Your task to perform on an android device: Show the shopping cart on target. Search for logitech g933 on target, select the first entry, add it to the cart, then select checkout. Image 0: 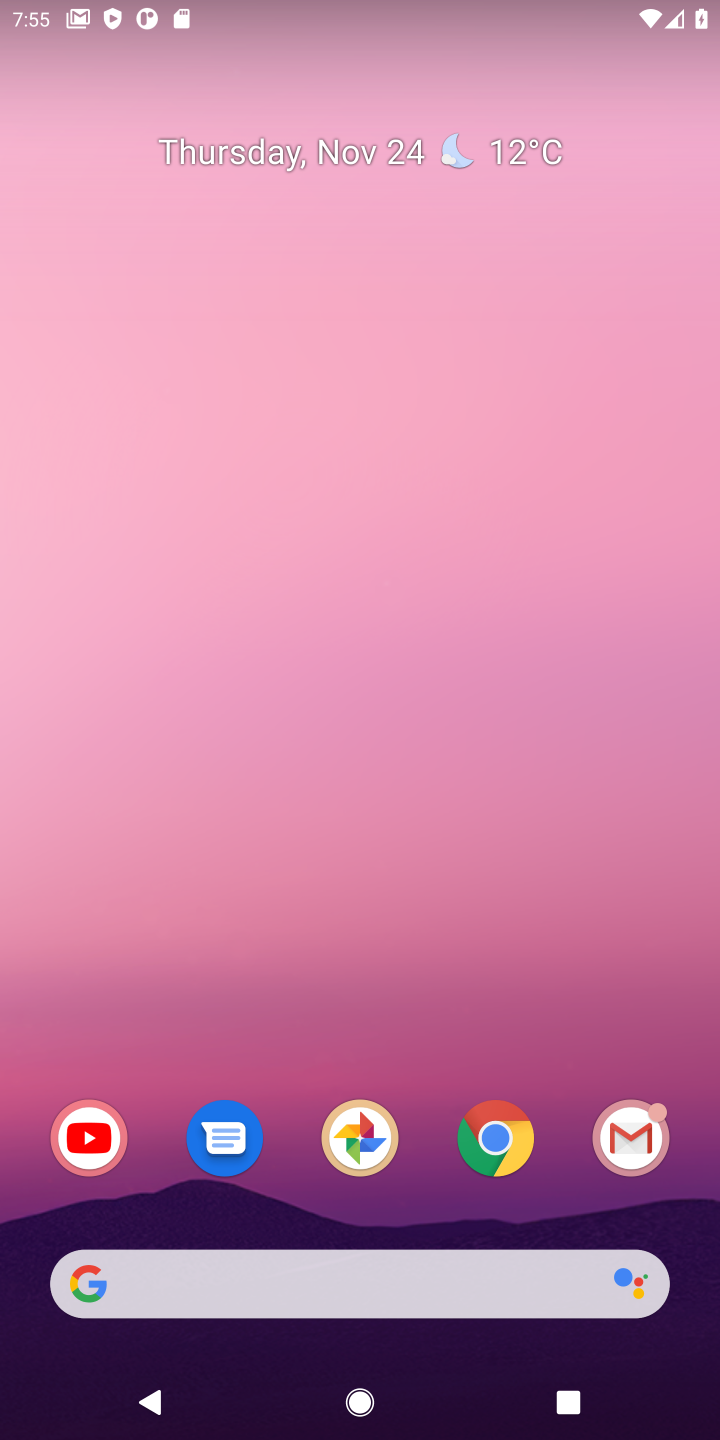
Step 0: click (485, 1141)
Your task to perform on an android device: Show the shopping cart on target. Search for logitech g933 on target, select the first entry, add it to the cart, then select checkout. Image 1: 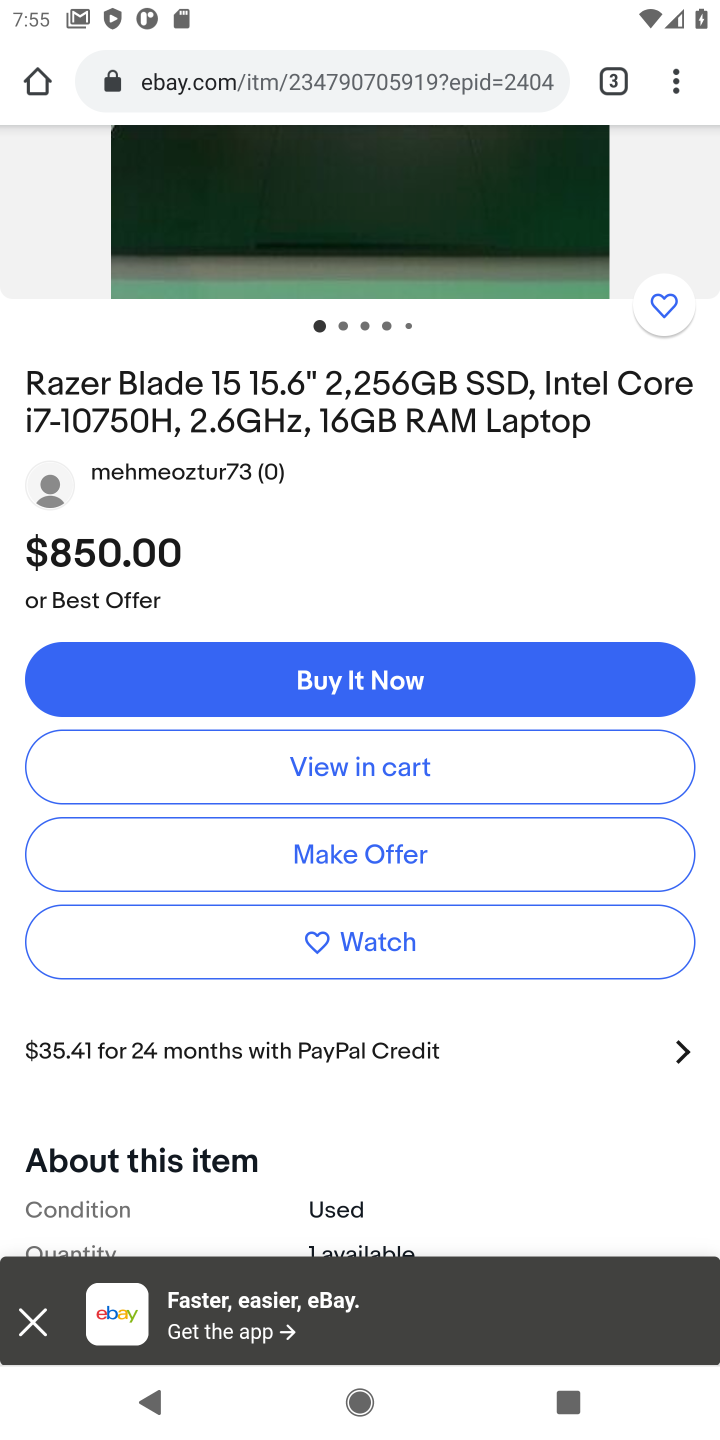
Step 1: drag from (442, 404) to (472, 1198)
Your task to perform on an android device: Show the shopping cart on target. Search for logitech g933 on target, select the first entry, add it to the cart, then select checkout. Image 2: 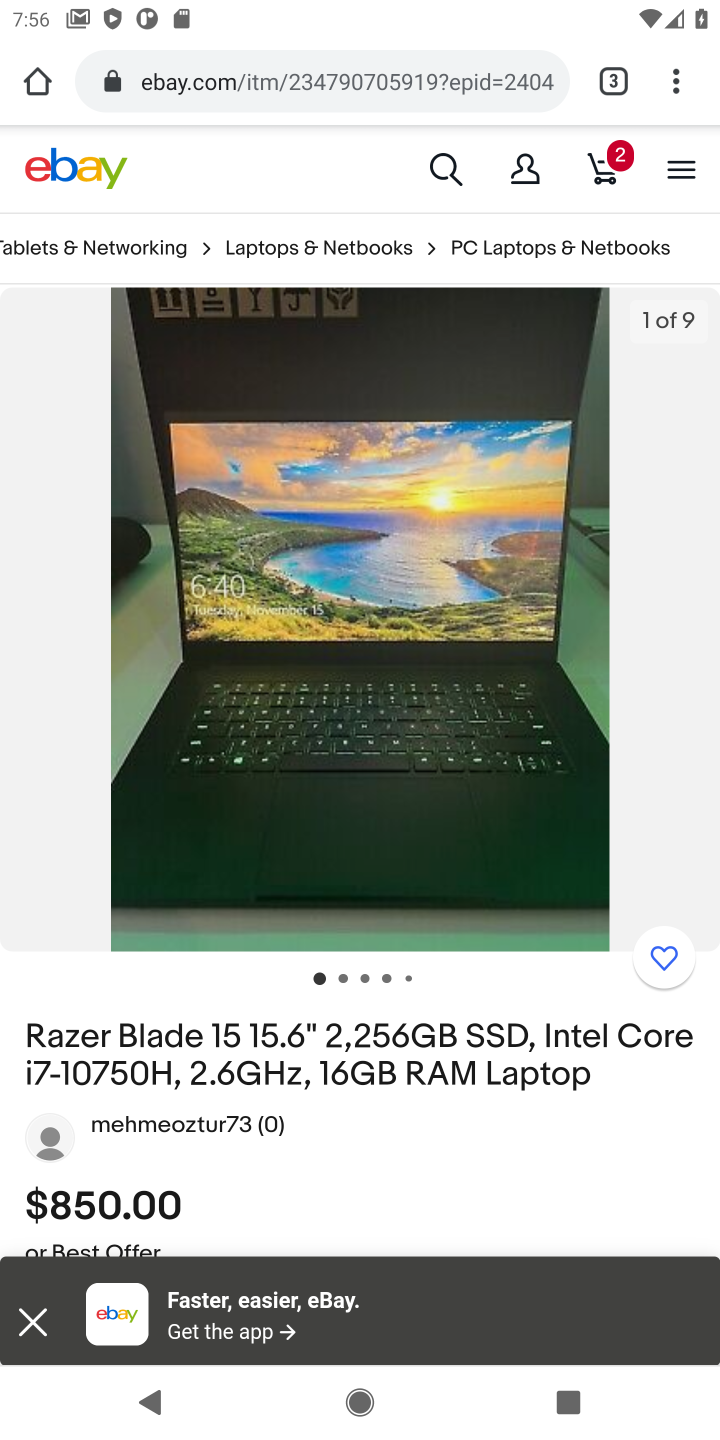
Step 2: click (600, 170)
Your task to perform on an android device: Show the shopping cart on target. Search for logitech g933 on target, select the first entry, add it to the cart, then select checkout. Image 3: 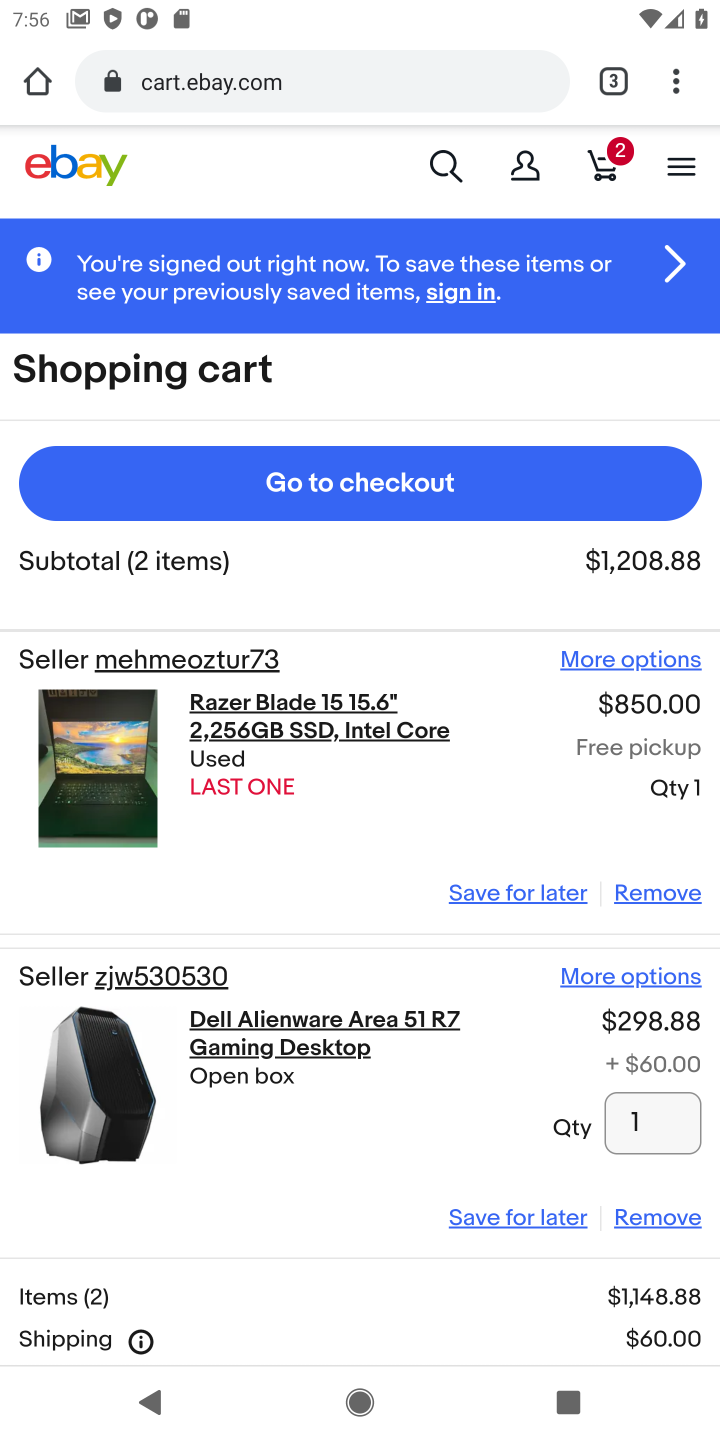
Step 3: click (611, 75)
Your task to perform on an android device: Show the shopping cart on target. Search for logitech g933 on target, select the first entry, add it to the cart, then select checkout. Image 4: 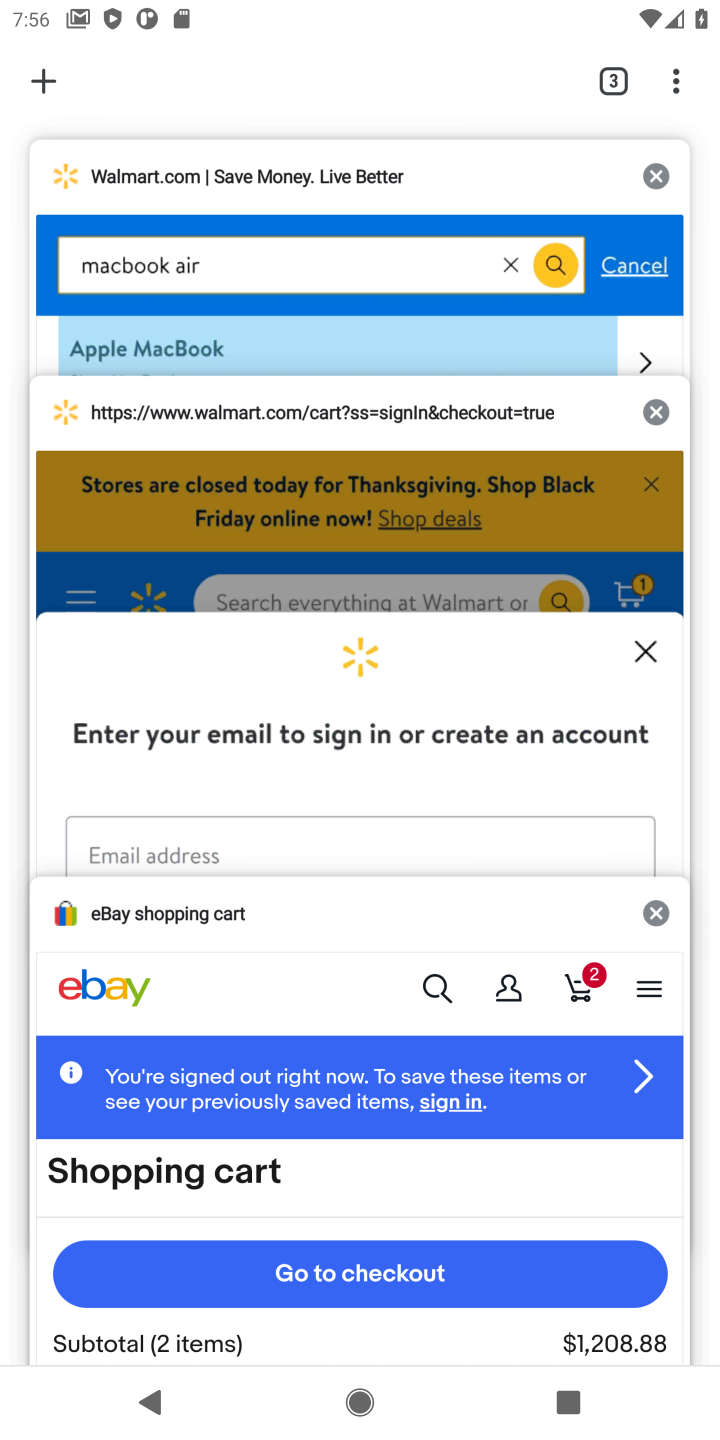
Step 4: click (55, 73)
Your task to perform on an android device: Show the shopping cart on target. Search for logitech g933 on target, select the first entry, add it to the cart, then select checkout. Image 5: 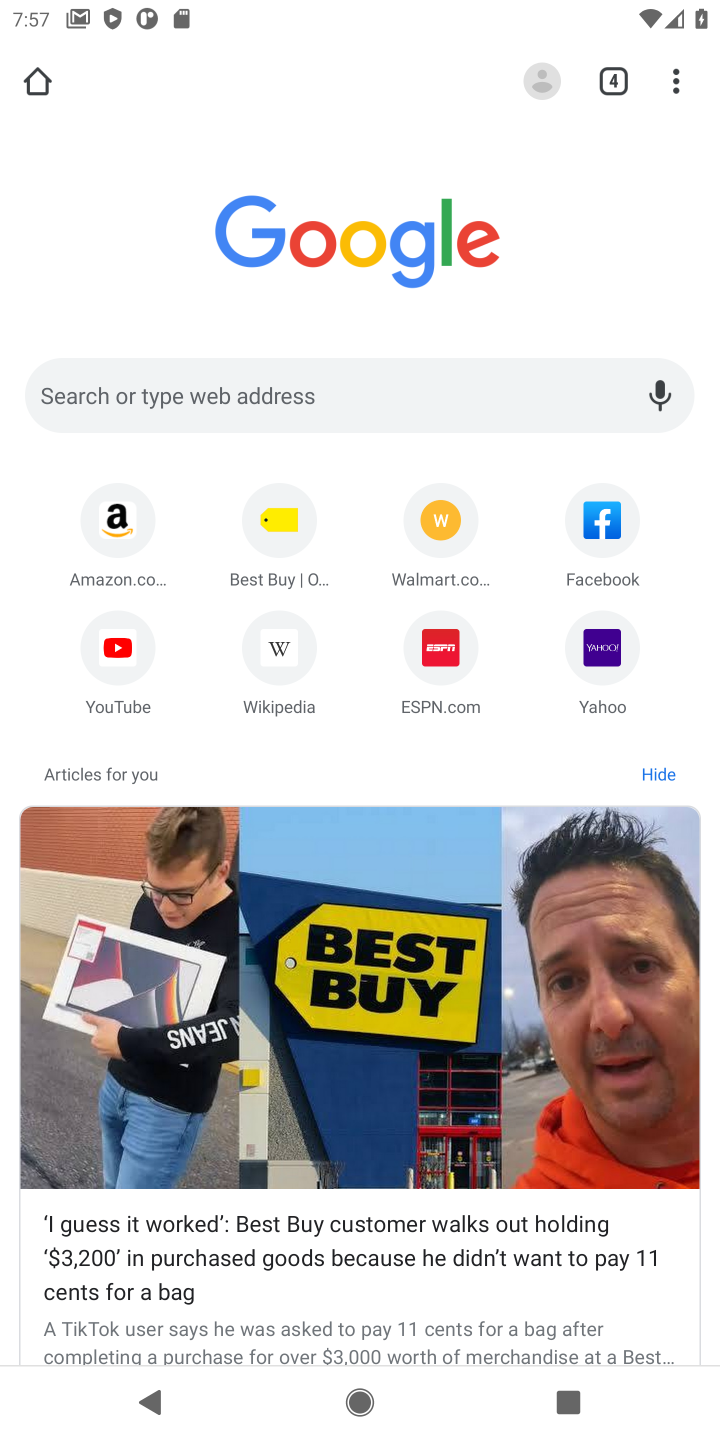
Step 5: click (157, 396)
Your task to perform on an android device: Show the shopping cart on target. Search for logitech g933 on target, select the first entry, add it to the cart, then select checkout. Image 6: 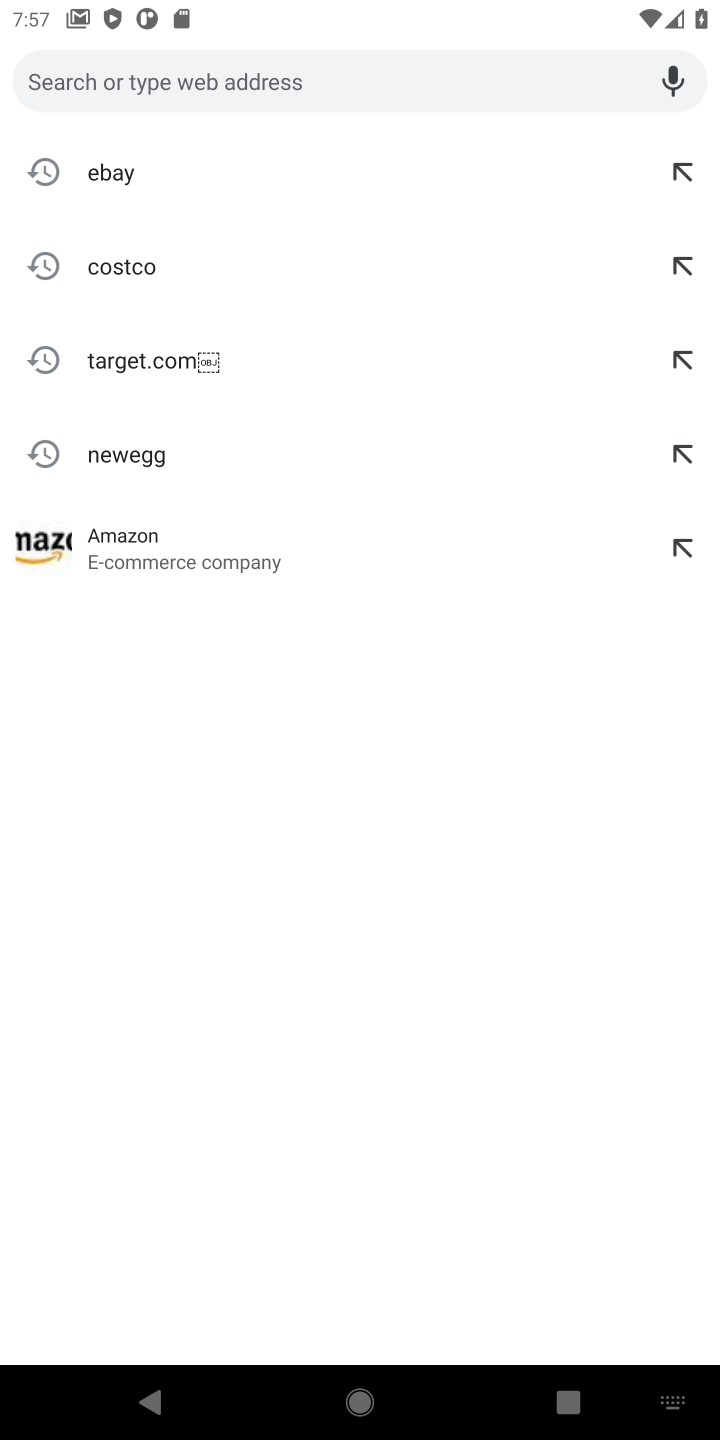
Step 6: click (137, 371)
Your task to perform on an android device: Show the shopping cart on target. Search for logitech g933 on target, select the first entry, add it to the cart, then select checkout. Image 7: 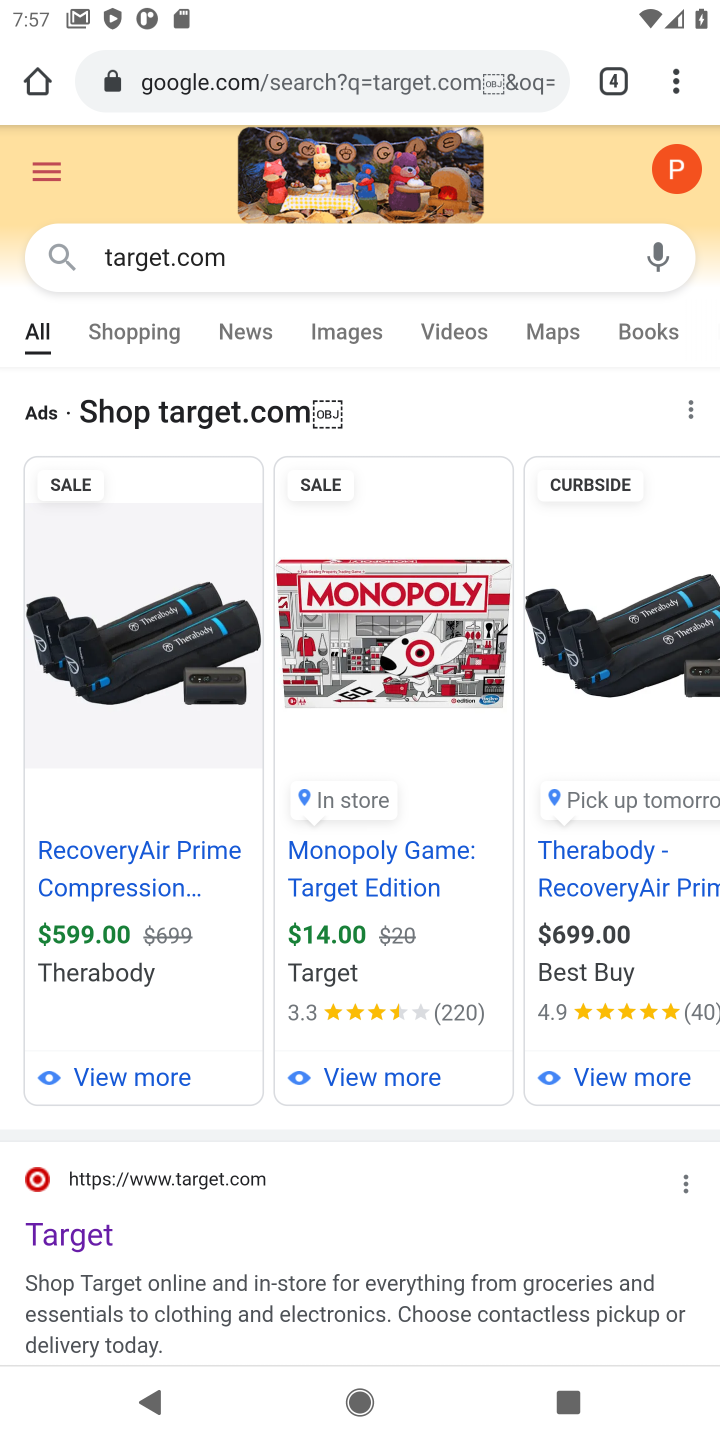
Step 7: click (66, 1224)
Your task to perform on an android device: Show the shopping cart on target. Search for logitech g933 on target, select the first entry, add it to the cart, then select checkout. Image 8: 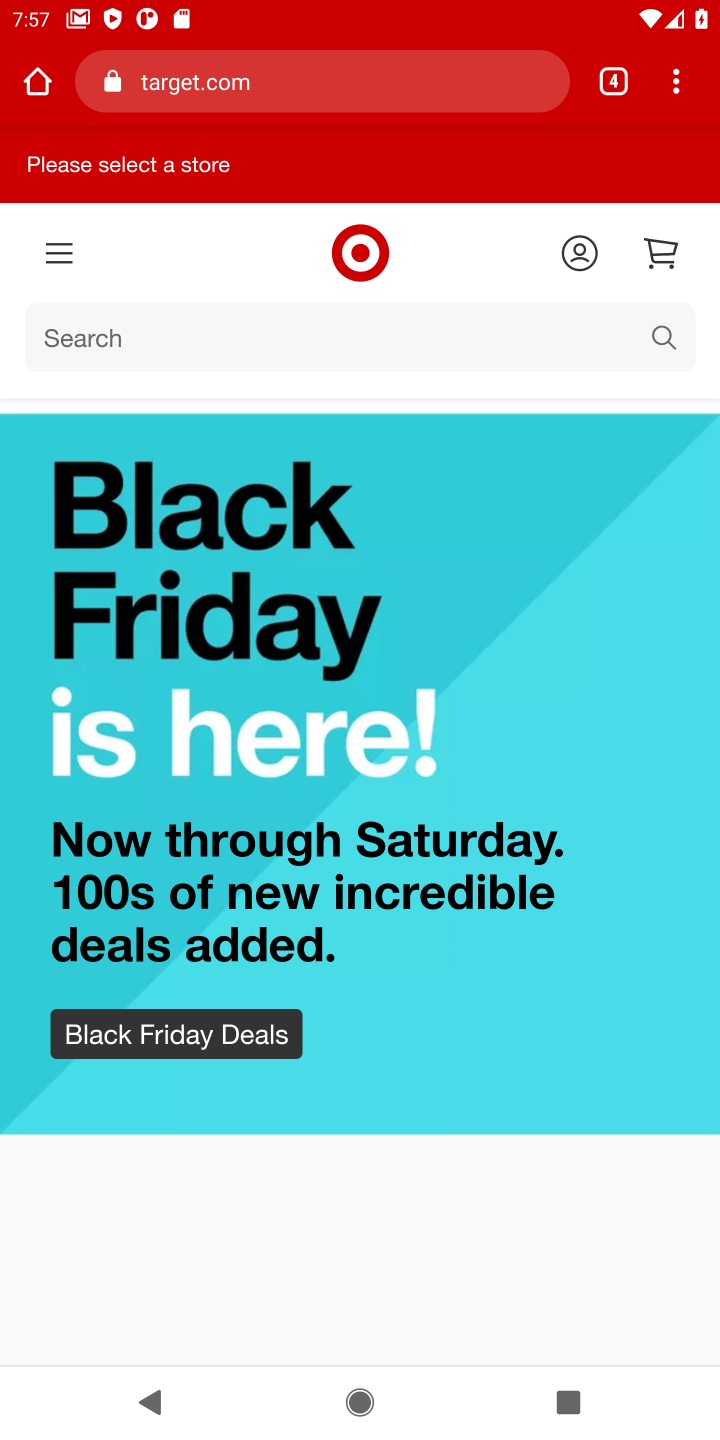
Step 8: click (657, 246)
Your task to perform on an android device: Show the shopping cart on target. Search for logitech g933 on target, select the first entry, add it to the cart, then select checkout. Image 9: 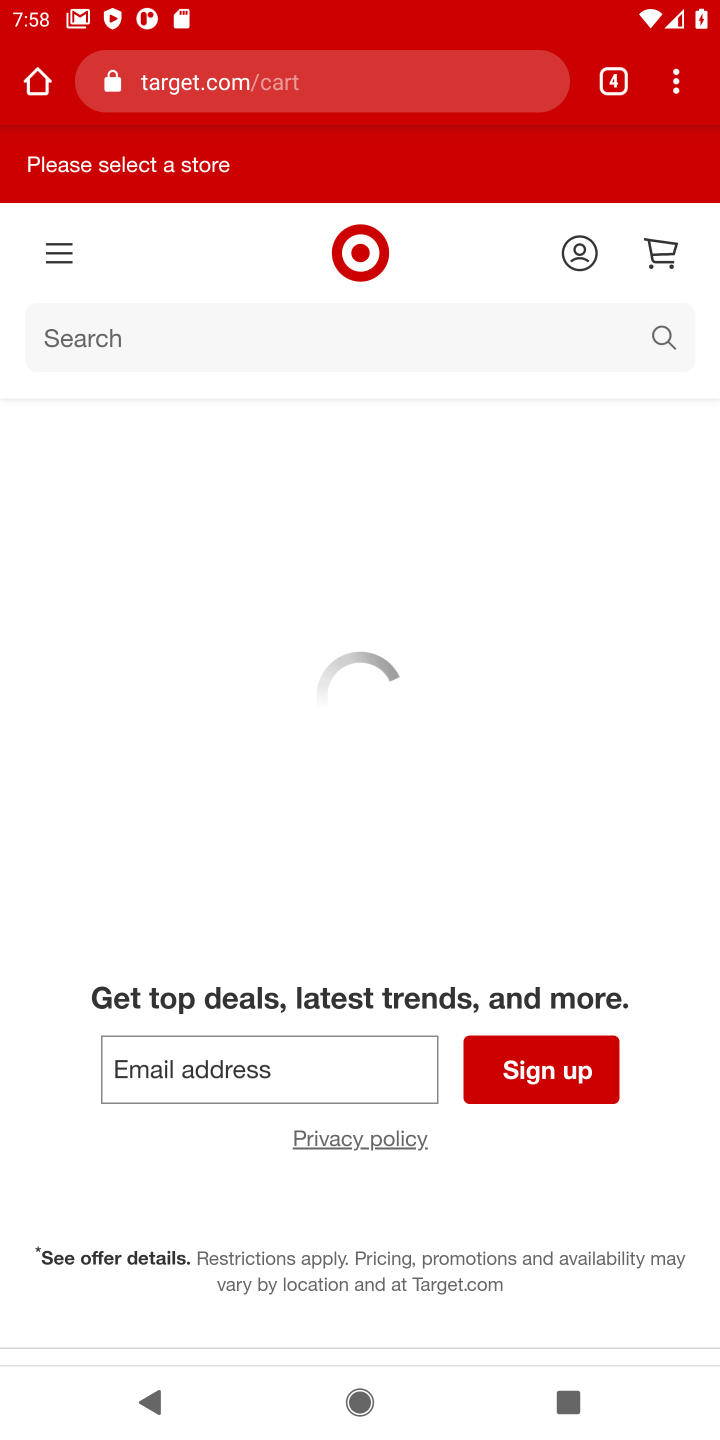
Step 9: click (255, 330)
Your task to perform on an android device: Show the shopping cart on target. Search for logitech g933 on target, select the first entry, add it to the cart, then select checkout. Image 10: 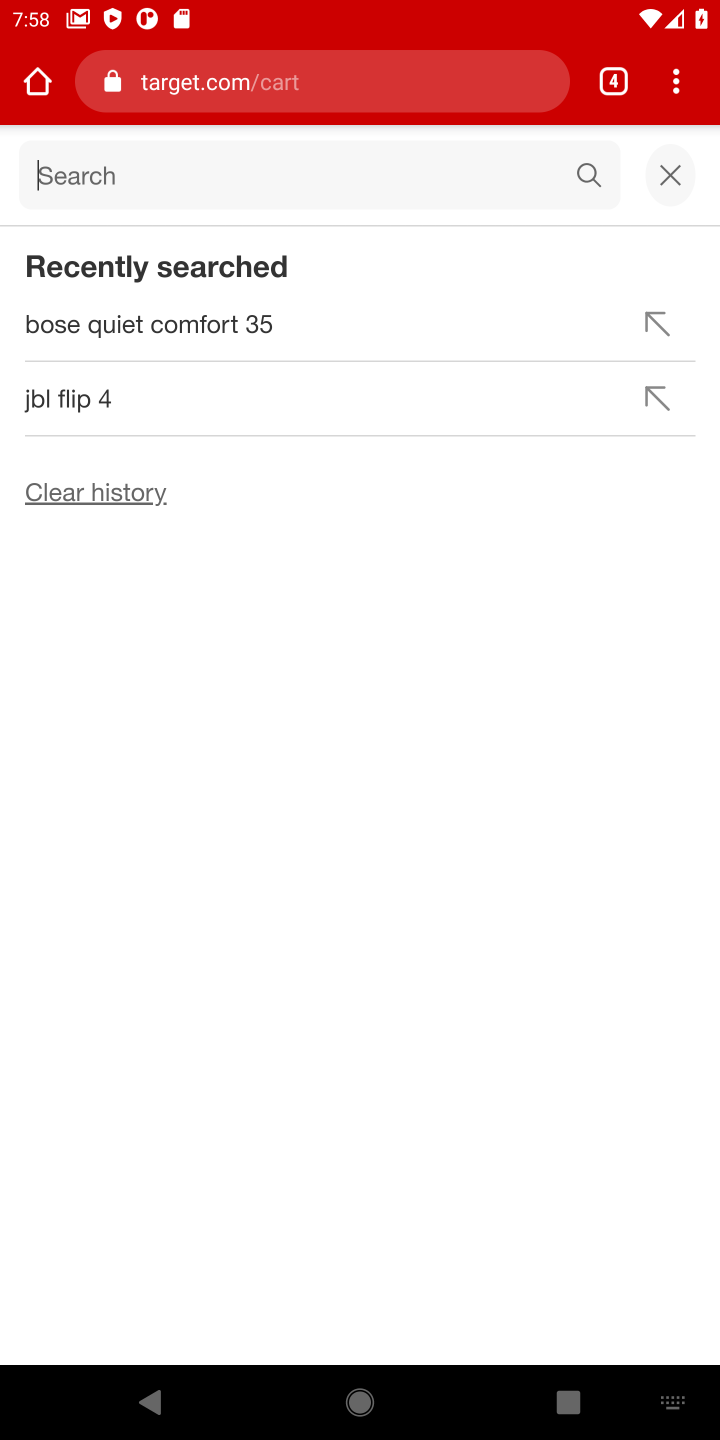
Step 10: click (256, 170)
Your task to perform on an android device: Show the shopping cart on target. Search for logitech g933 on target, select the first entry, add it to the cart, then select checkout. Image 11: 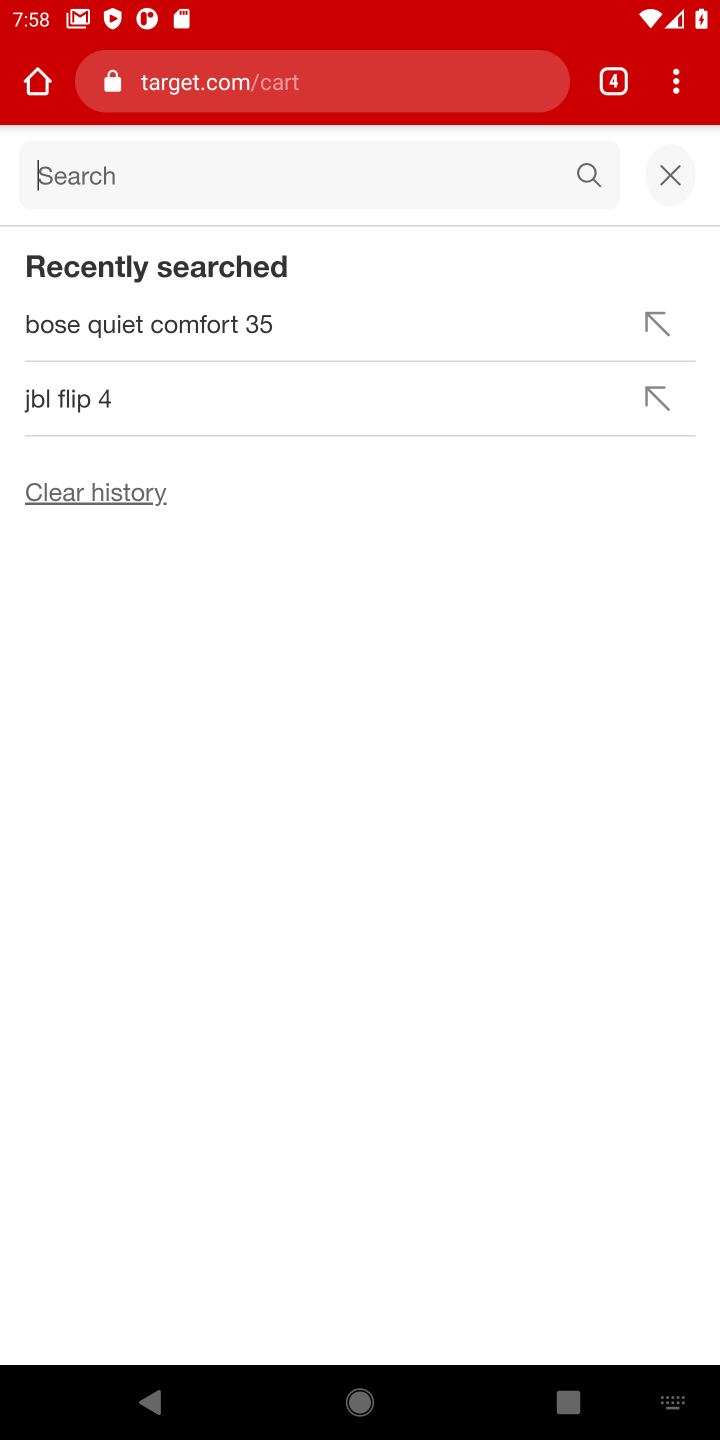
Step 11: type " logitech g933"
Your task to perform on an android device: Show the shopping cart on target. Search for logitech g933 on target, select the first entry, add it to the cart, then select checkout. Image 12: 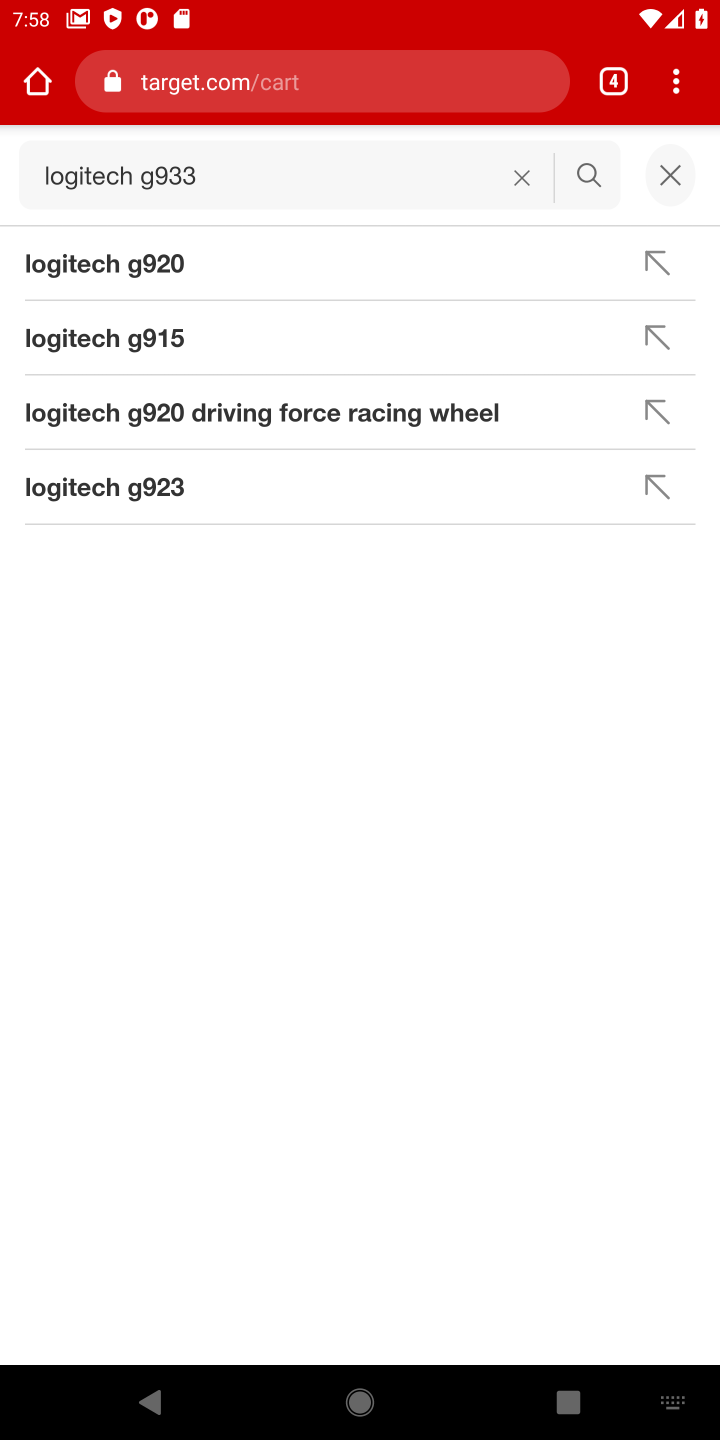
Step 12: task complete